Your task to perform on an android device: change the clock display to analog Image 0: 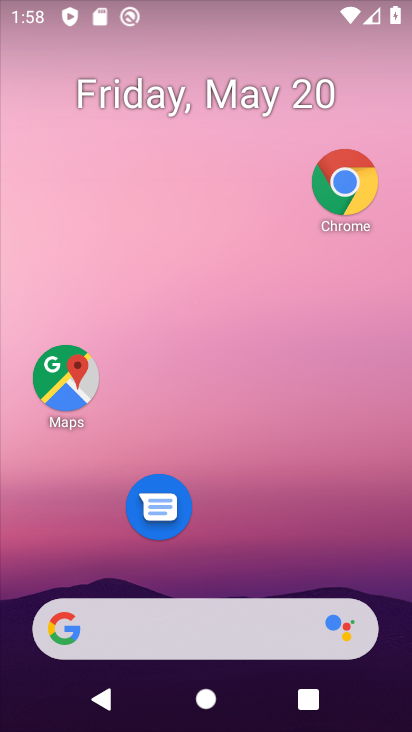
Step 0: drag from (312, 479) to (311, 104)
Your task to perform on an android device: change the clock display to analog Image 1: 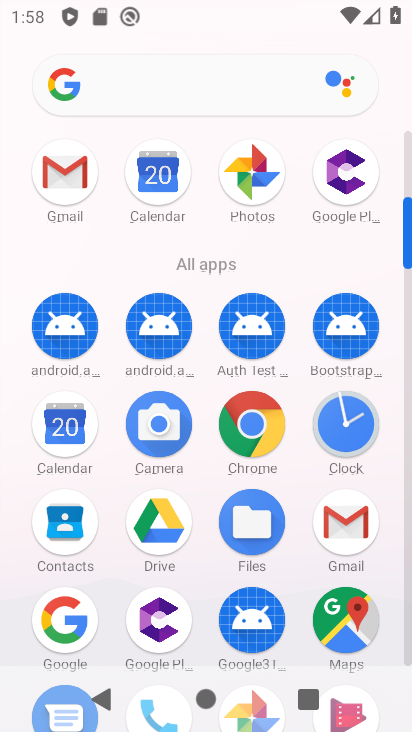
Step 1: click (338, 422)
Your task to perform on an android device: change the clock display to analog Image 2: 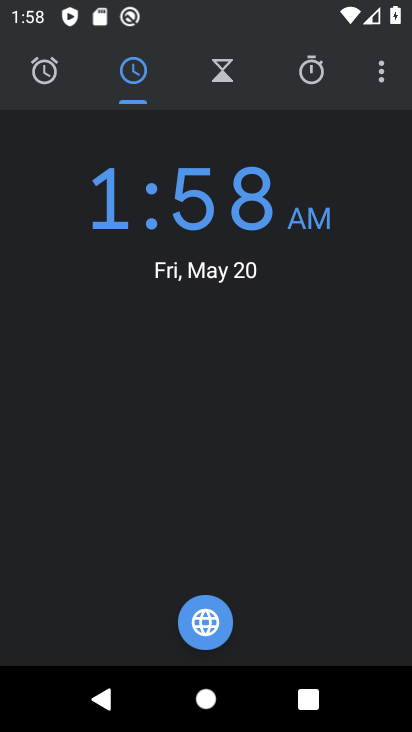
Step 2: click (370, 88)
Your task to perform on an android device: change the clock display to analog Image 3: 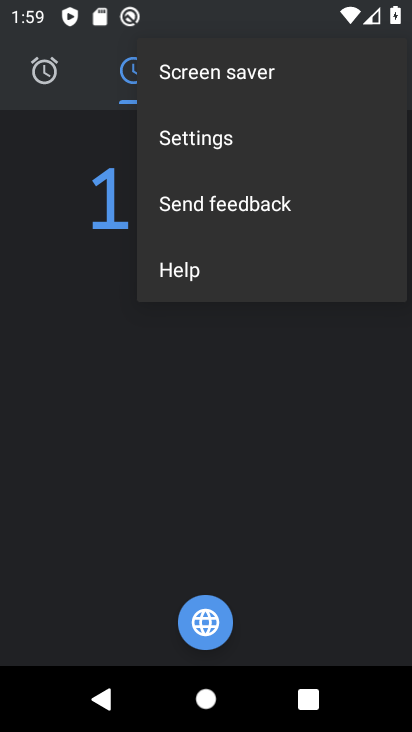
Step 3: click (224, 144)
Your task to perform on an android device: change the clock display to analog Image 4: 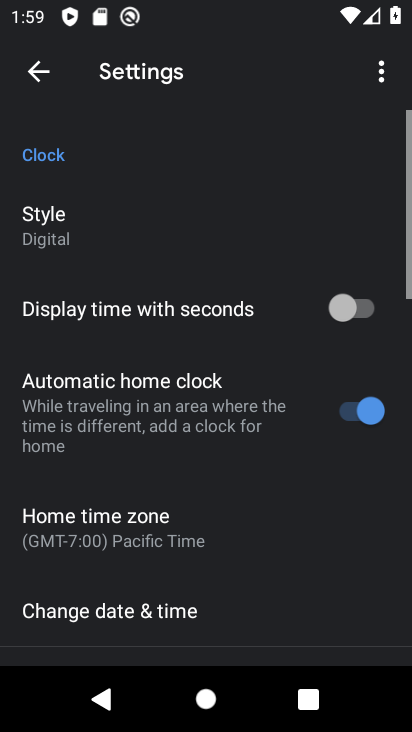
Step 4: click (133, 248)
Your task to perform on an android device: change the clock display to analog Image 5: 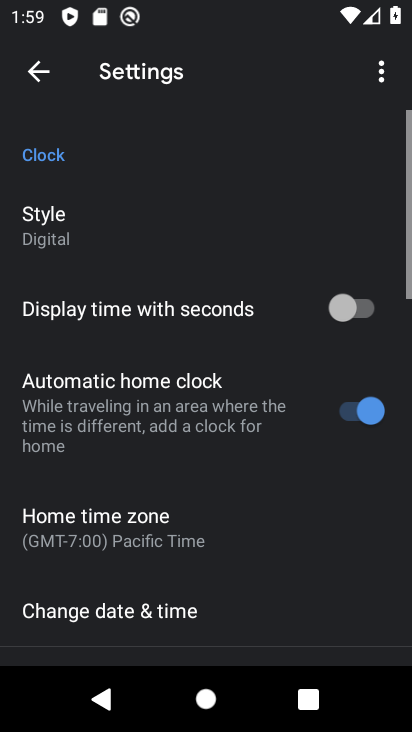
Step 5: click (133, 248)
Your task to perform on an android device: change the clock display to analog Image 6: 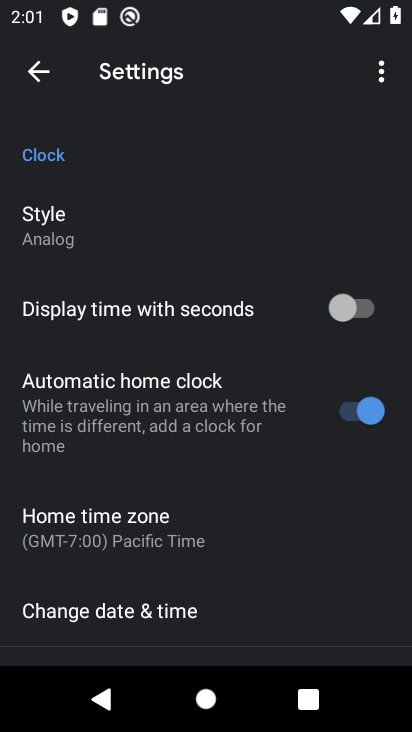
Step 6: task complete